Your task to perform on an android device: delete browsing data in the chrome app Image 0: 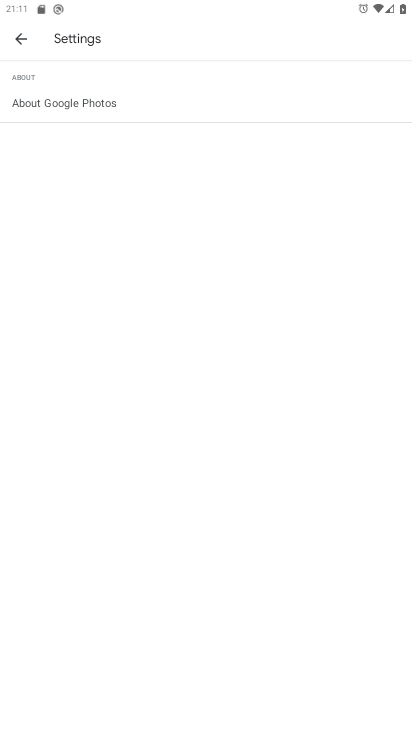
Step 0: press home button
Your task to perform on an android device: delete browsing data in the chrome app Image 1: 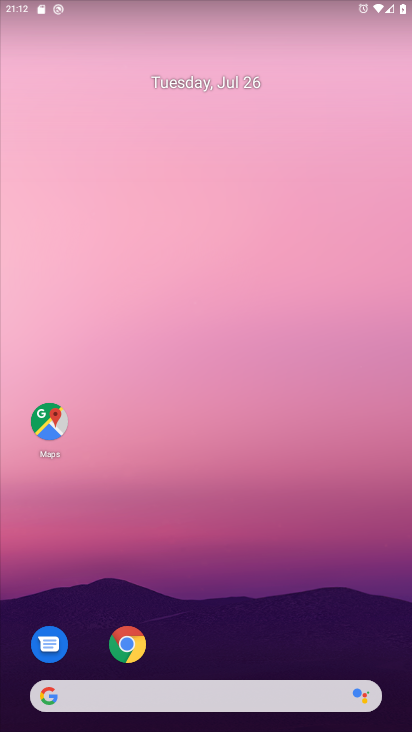
Step 1: drag from (219, 691) to (231, 341)
Your task to perform on an android device: delete browsing data in the chrome app Image 2: 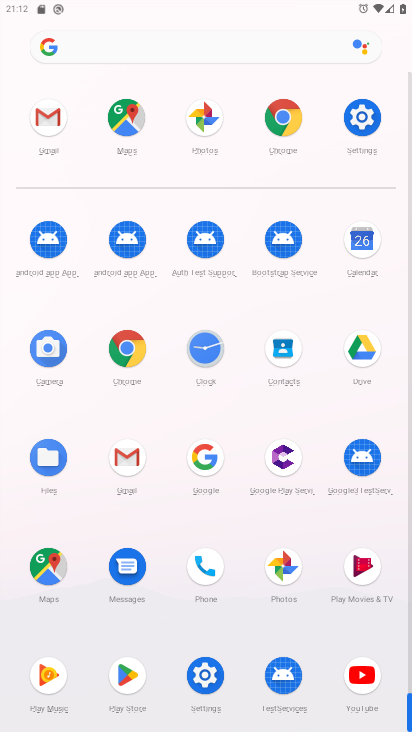
Step 2: click (134, 355)
Your task to perform on an android device: delete browsing data in the chrome app Image 3: 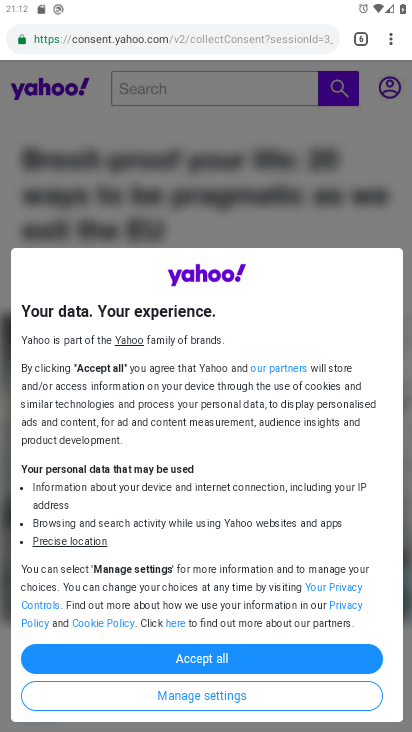
Step 3: click (395, 43)
Your task to perform on an android device: delete browsing data in the chrome app Image 4: 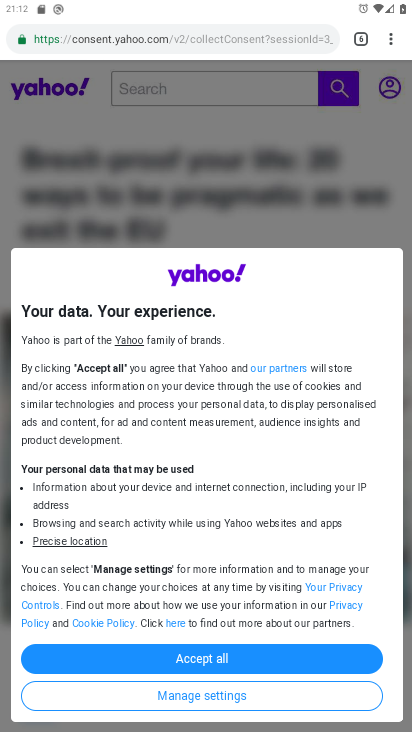
Step 4: click (389, 29)
Your task to perform on an android device: delete browsing data in the chrome app Image 5: 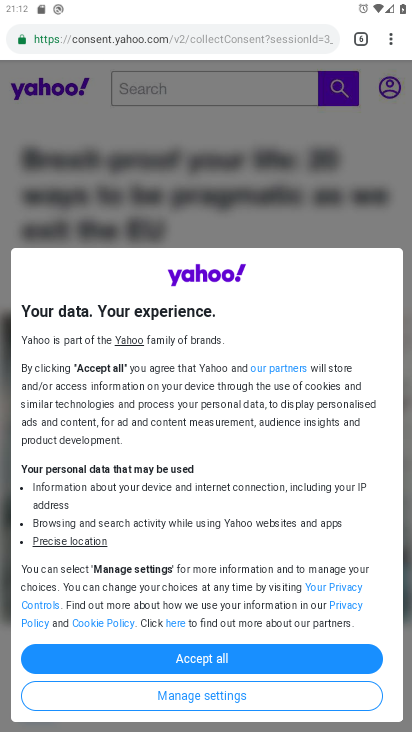
Step 5: click (393, 41)
Your task to perform on an android device: delete browsing data in the chrome app Image 6: 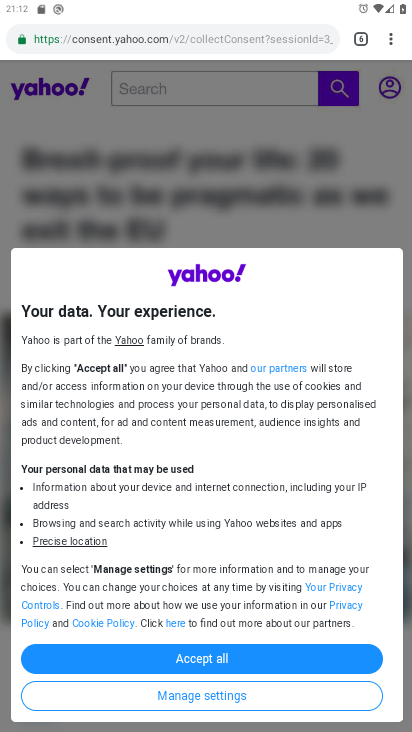
Step 6: click (393, 41)
Your task to perform on an android device: delete browsing data in the chrome app Image 7: 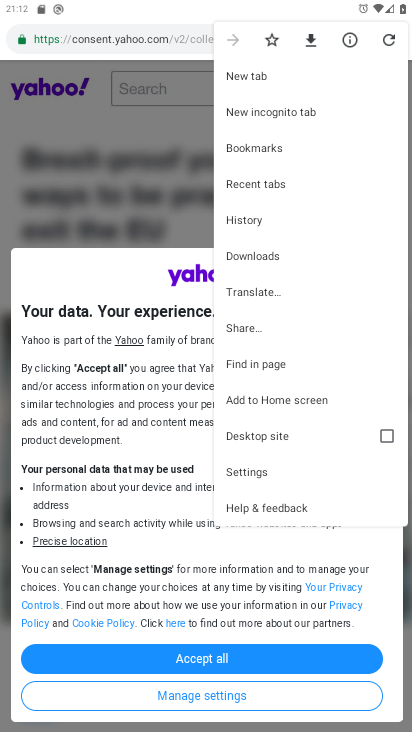
Step 7: click (257, 472)
Your task to perform on an android device: delete browsing data in the chrome app Image 8: 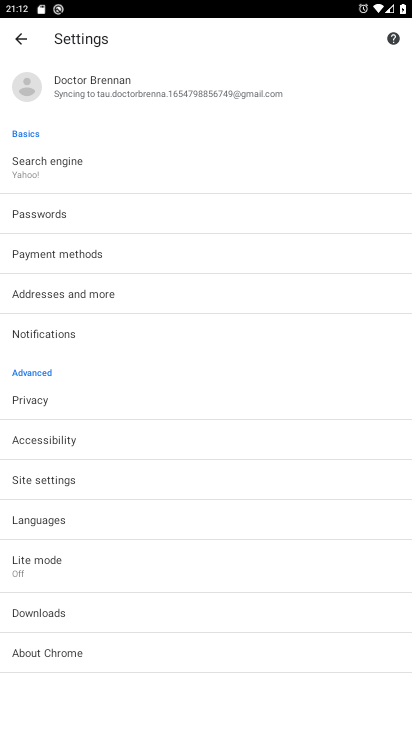
Step 8: click (71, 388)
Your task to perform on an android device: delete browsing data in the chrome app Image 9: 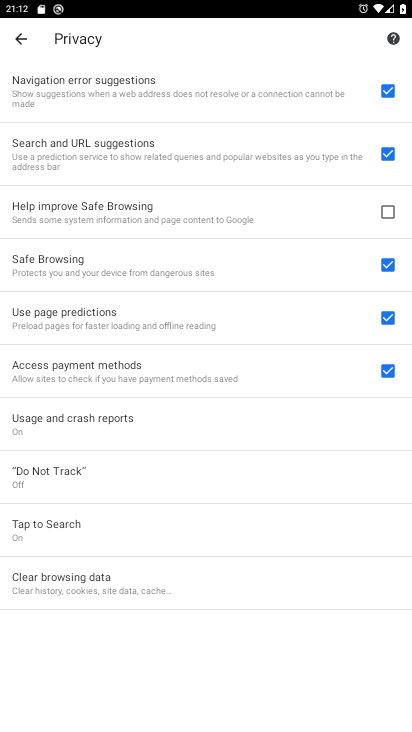
Step 9: click (143, 581)
Your task to perform on an android device: delete browsing data in the chrome app Image 10: 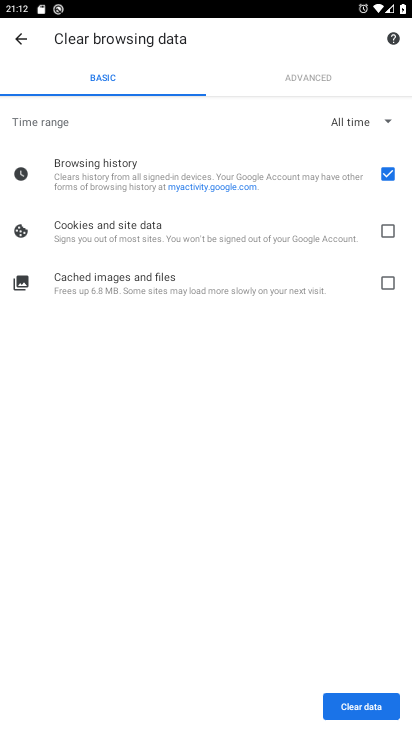
Step 10: click (386, 235)
Your task to perform on an android device: delete browsing data in the chrome app Image 11: 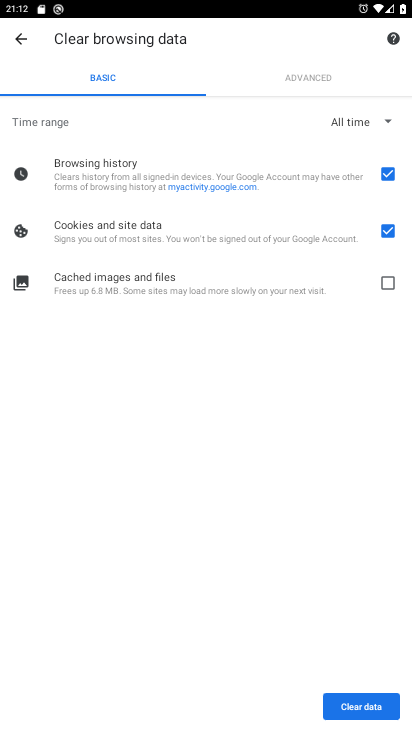
Step 11: click (386, 276)
Your task to perform on an android device: delete browsing data in the chrome app Image 12: 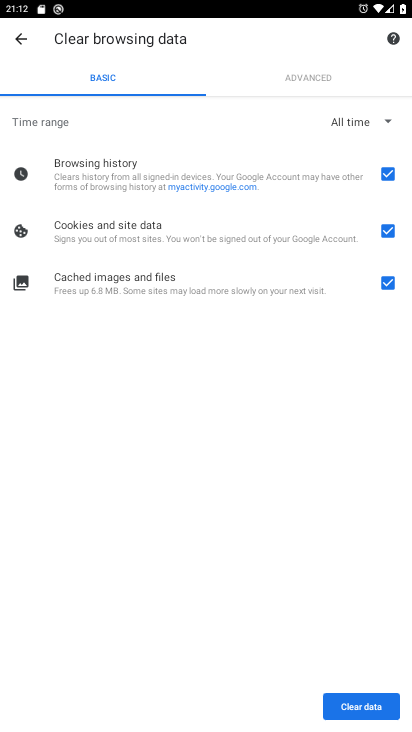
Step 12: click (346, 701)
Your task to perform on an android device: delete browsing data in the chrome app Image 13: 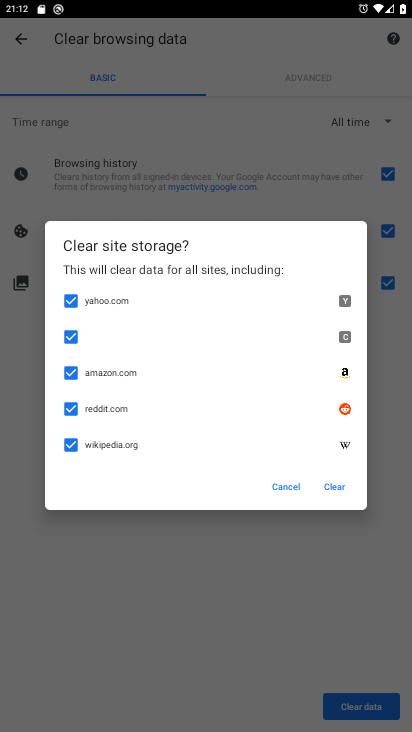
Step 13: click (336, 485)
Your task to perform on an android device: delete browsing data in the chrome app Image 14: 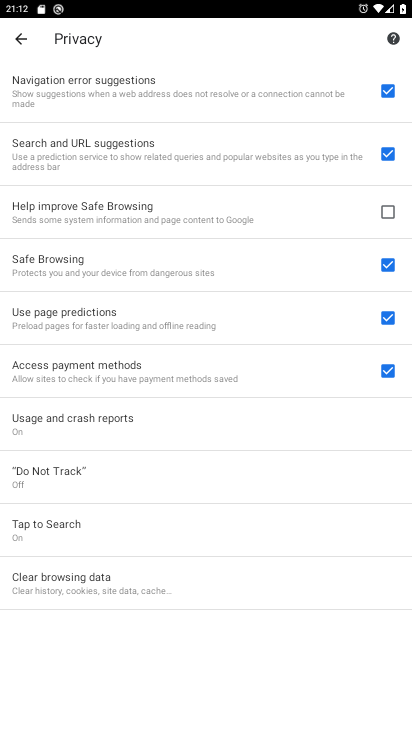
Step 14: task complete